Your task to perform on an android device: find photos in the google photos app Image 0: 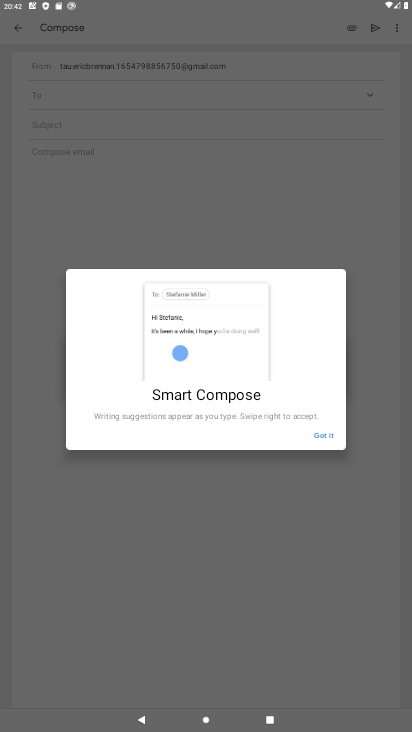
Step 0: press home button
Your task to perform on an android device: find photos in the google photos app Image 1: 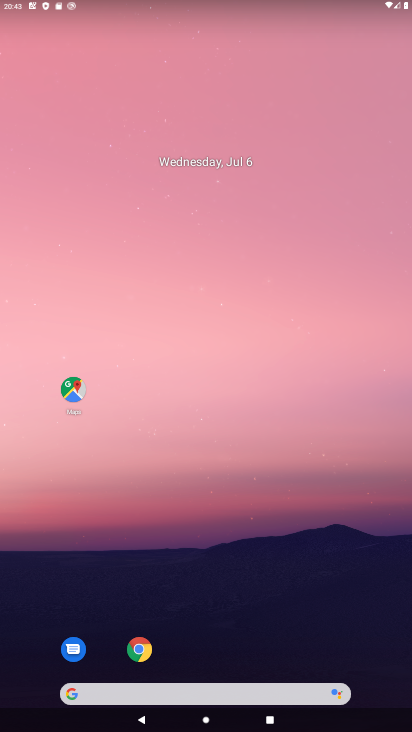
Step 1: drag from (211, 593) to (316, 74)
Your task to perform on an android device: find photos in the google photos app Image 2: 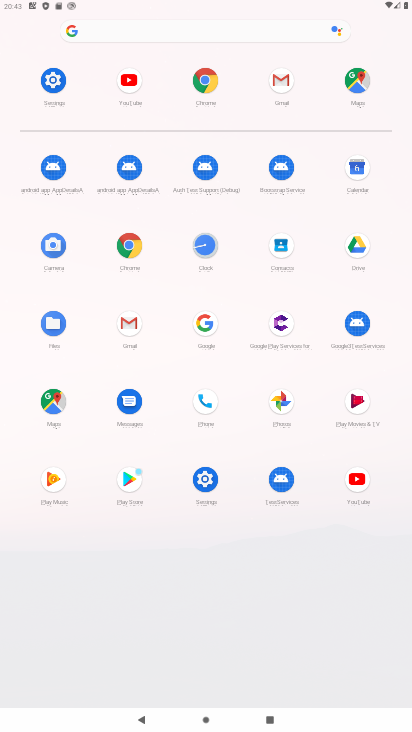
Step 2: click (289, 406)
Your task to perform on an android device: find photos in the google photos app Image 3: 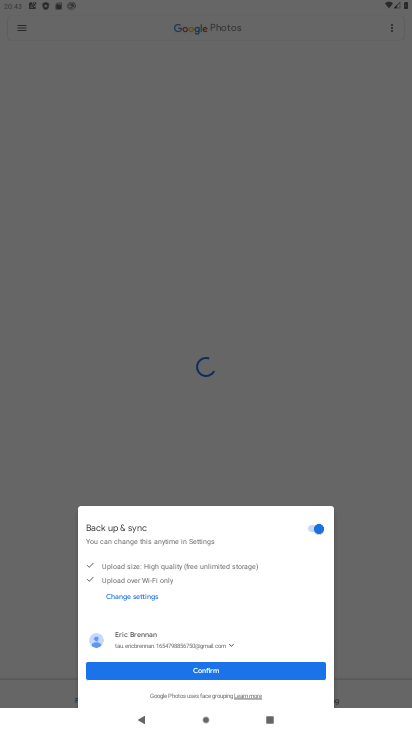
Step 3: click (198, 669)
Your task to perform on an android device: find photos in the google photos app Image 4: 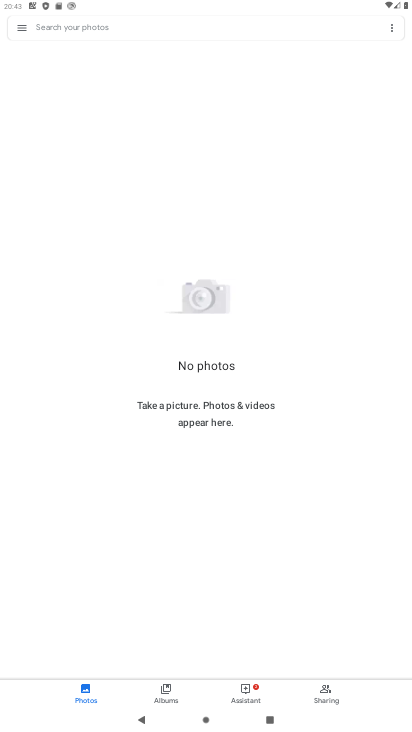
Step 4: task complete